Your task to perform on an android device: Find coffee shops on Maps Image 0: 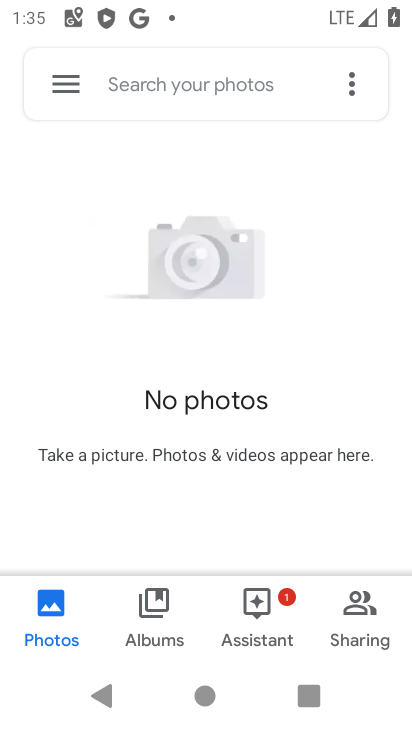
Step 0: press home button
Your task to perform on an android device: Find coffee shops on Maps Image 1: 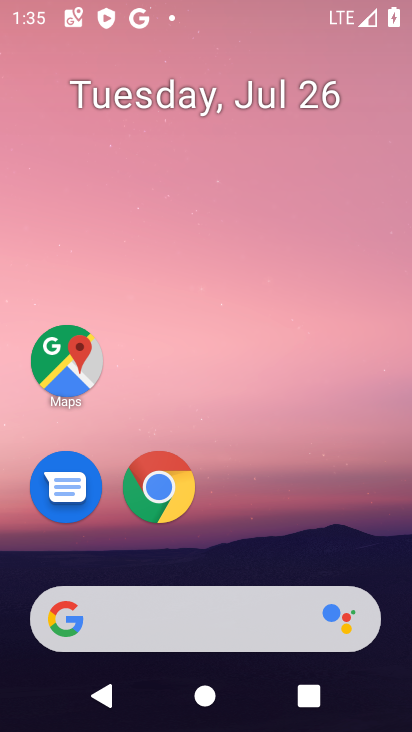
Step 1: drag from (183, 600) to (180, 109)
Your task to perform on an android device: Find coffee shops on Maps Image 2: 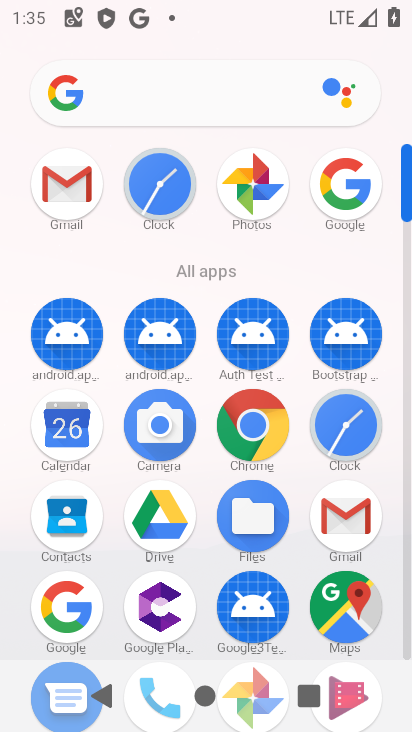
Step 2: click (363, 611)
Your task to perform on an android device: Find coffee shops on Maps Image 3: 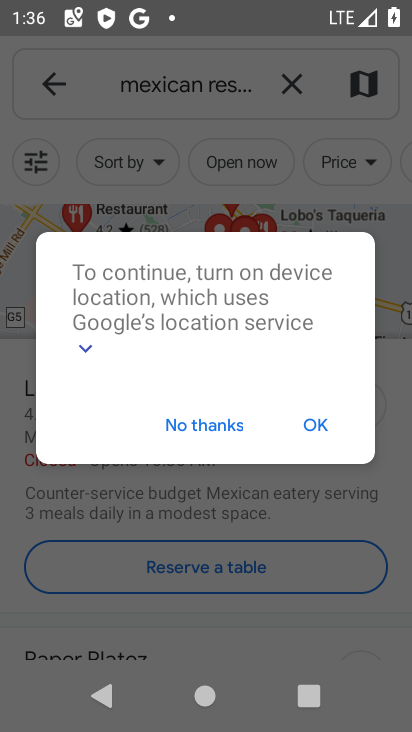
Step 3: click (310, 430)
Your task to perform on an android device: Find coffee shops on Maps Image 4: 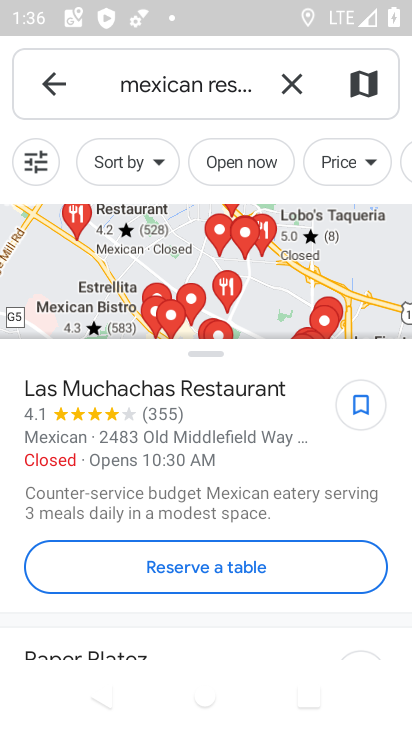
Step 4: click (290, 86)
Your task to perform on an android device: Find coffee shops on Maps Image 5: 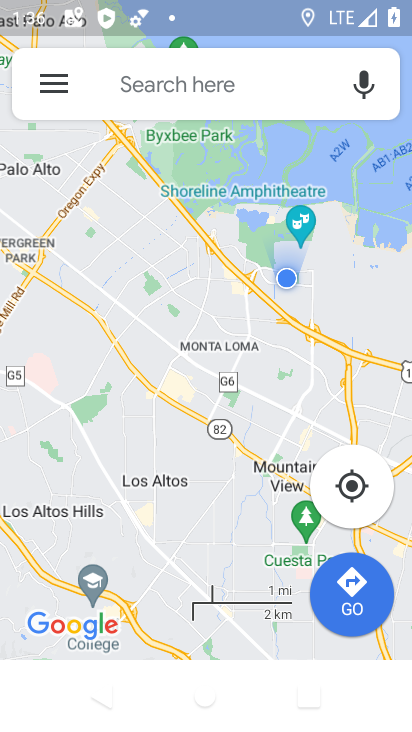
Step 5: click (244, 85)
Your task to perform on an android device: Find coffee shops on Maps Image 6: 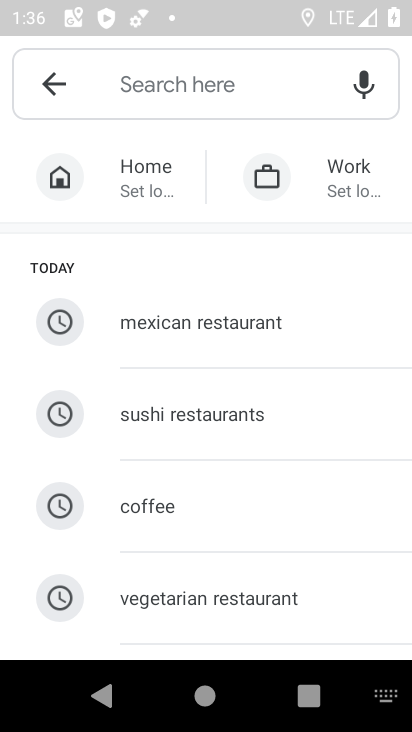
Step 6: type "coffee shops"
Your task to perform on an android device: Find coffee shops on Maps Image 7: 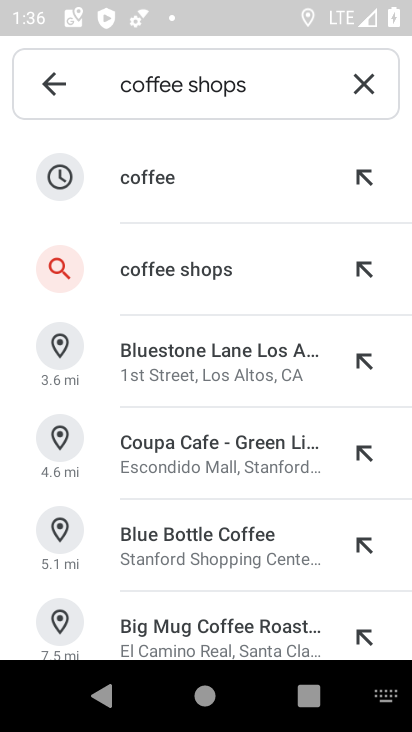
Step 7: click (247, 281)
Your task to perform on an android device: Find coffee shops on Maps Image 8: 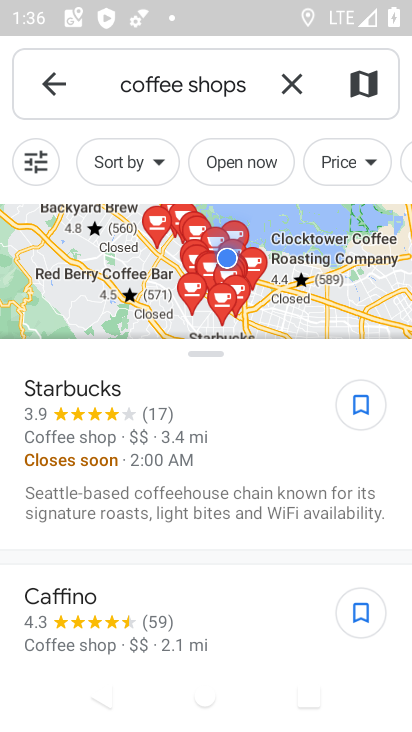
Step 8: task complete